Your task to perform on an android device: Open settings on Google Maps Image 0: 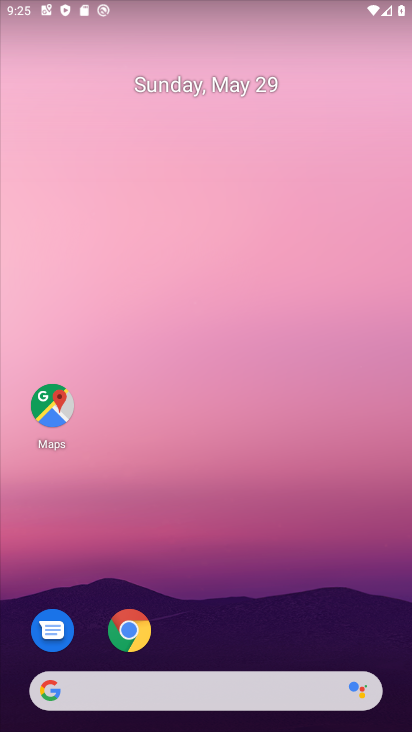
Step 0: drag from (283, 620) to (237, 373)
Your task to perform on an android device: Open settings on Google Maps Image 1: 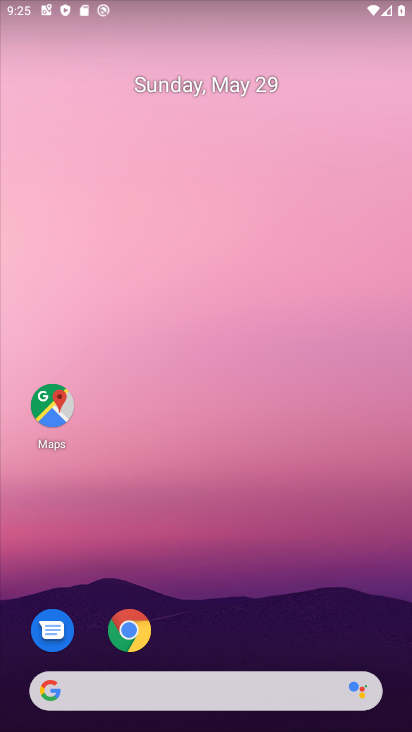
Step 1: click (49, 407)
Your task to perform on an android device: Open settings on Google Maps Image 2: 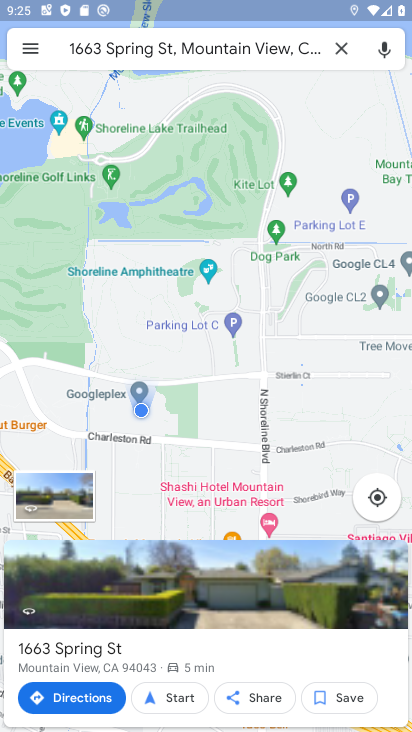
Step 2: click (35, 48)
Your task to perform on an android device: Open settings on Google Maps Image 3: 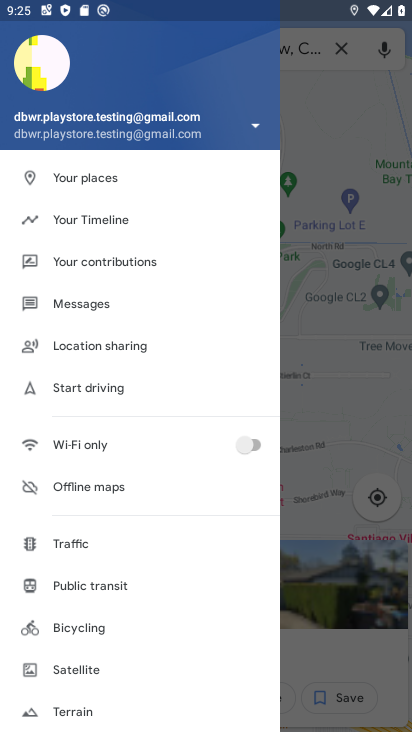
Step 3: drag from (162, 684) to (161, 398)
Your task to perform on an android device: Open settings on Google Maps Image 4: 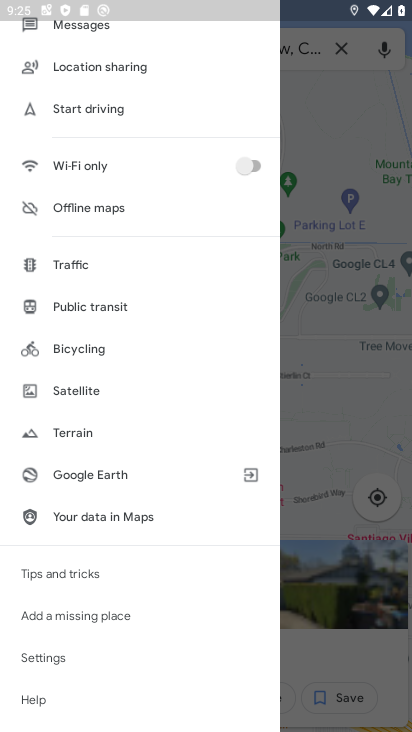
Step 4: click (47, 662)
Your task to perform on an android device: Open settings on Google Maps Image 5: 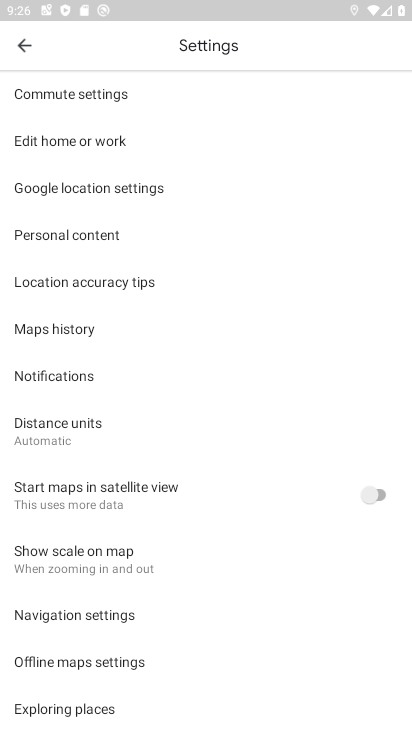
Step 5: task complete